Your task to perform on an android device: Go to display settings Image 0: 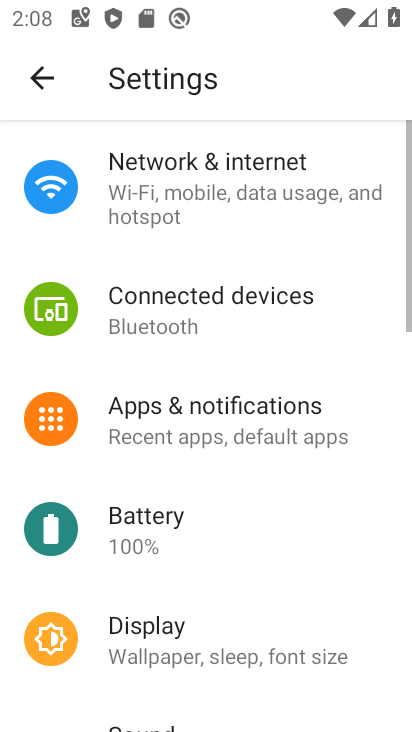
Step 0: press home button
Your task to perform on an android device: Go to display settings Image 1: 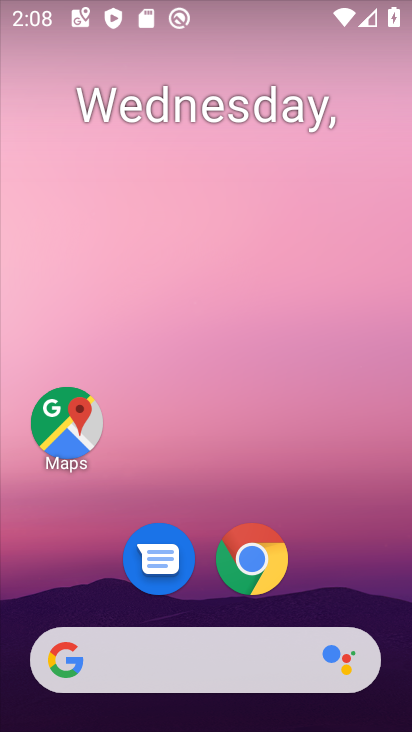
Step 1: drag from (333, 552) to (299, 9)
Your task to perform on an android device: Go to display settings Image 2: 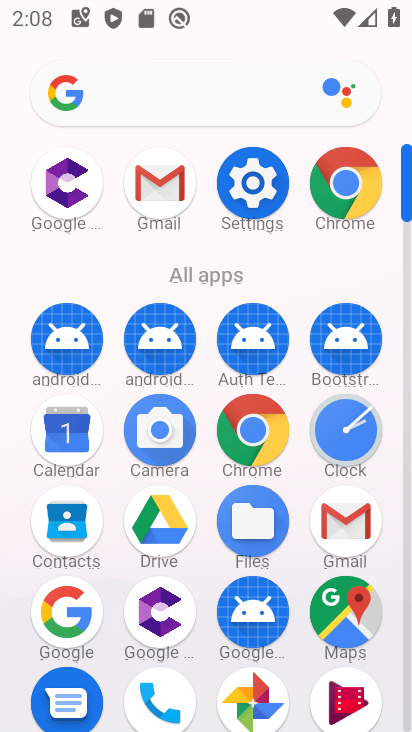
Step 2: click (220, 192)
Your task to perform on an android device: Go to display settings Image 3: 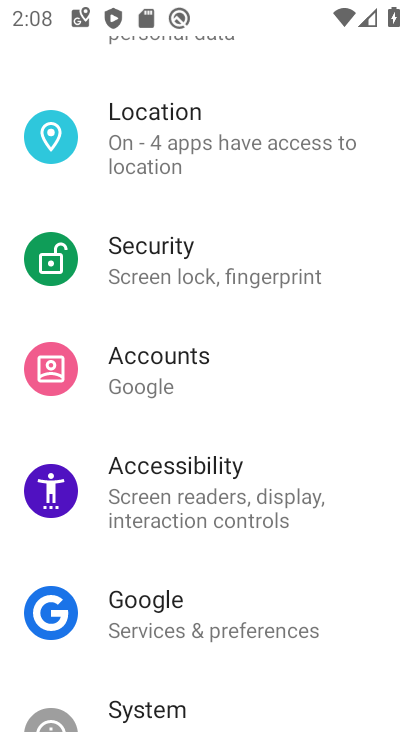
Step 3: drag from (207, 79) to (265, 707)
Your task to perform on an android device: Go to display settings Image 4: 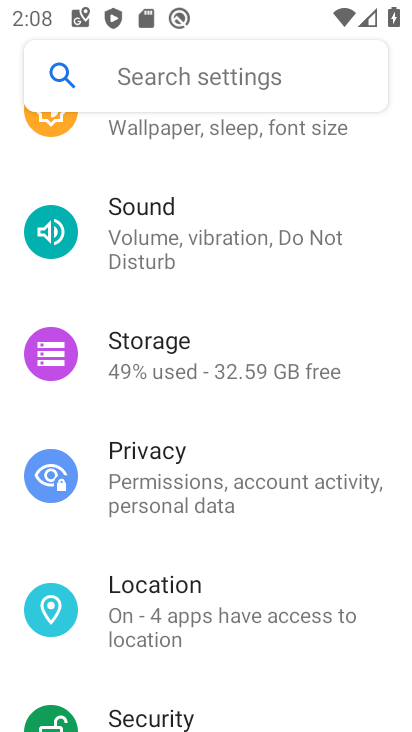
Step 4: drag from (282, 229) to (229, 707)
Your task to perform on an android device: Go to display settings Image 5: 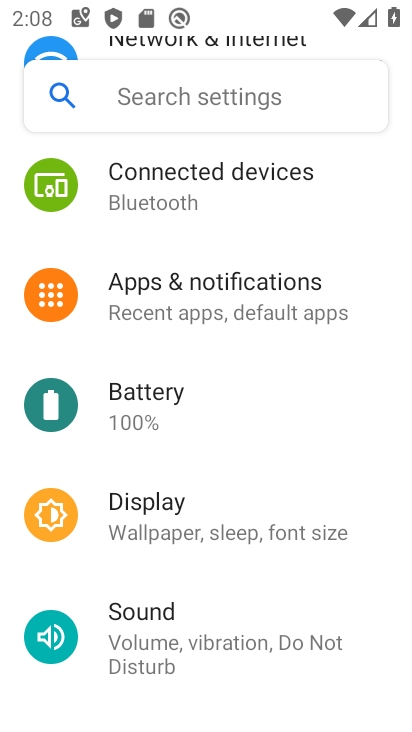
Step 5: click (208, 522)
Your task to perform on an android device: Go to display settings Image 6: 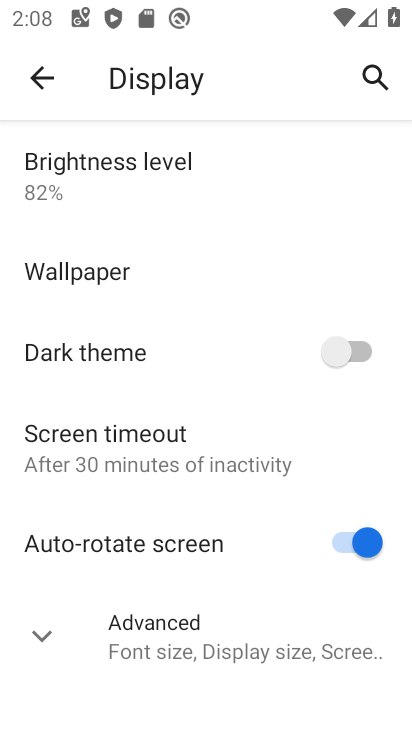
Step 6: task complete